Your task to perform on an android device: Open Google Chrome Image 0: 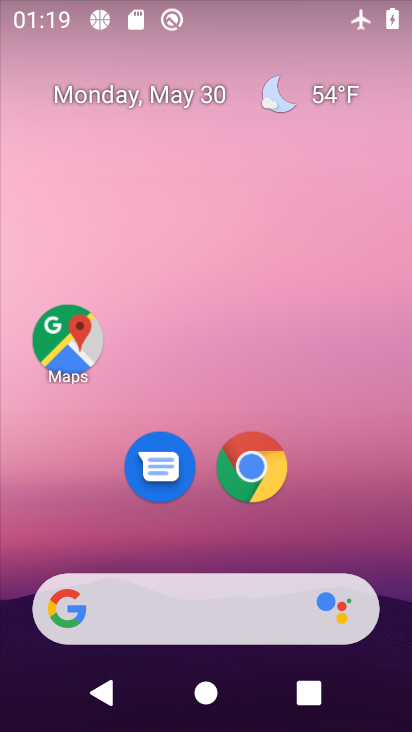
Step 0: click (256, 484)
Your task to perform on an android device: Open Google Chrome Image 1: 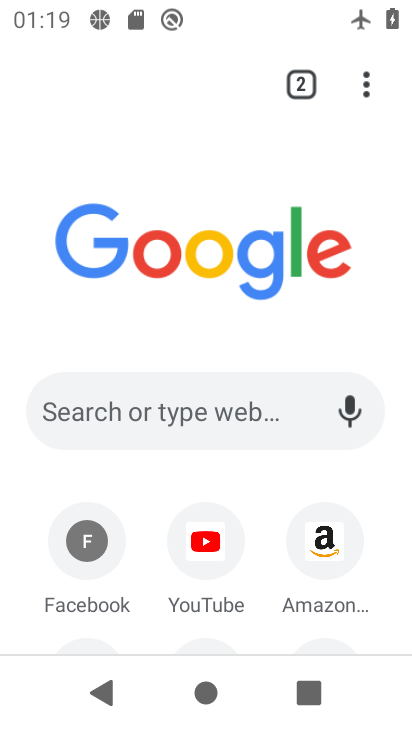
Step 1: task complete